Your task to perform on an android device: Search for seafood restaurants on Google Maps Image 0: 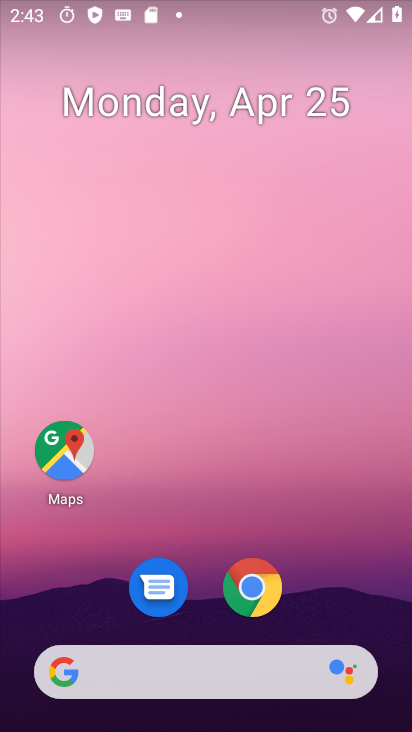
Step 0: drag from (367, 549) to (264, 99)
Your task to perform on an android device: Search for seafood restaurants on Google Maps Image 1: 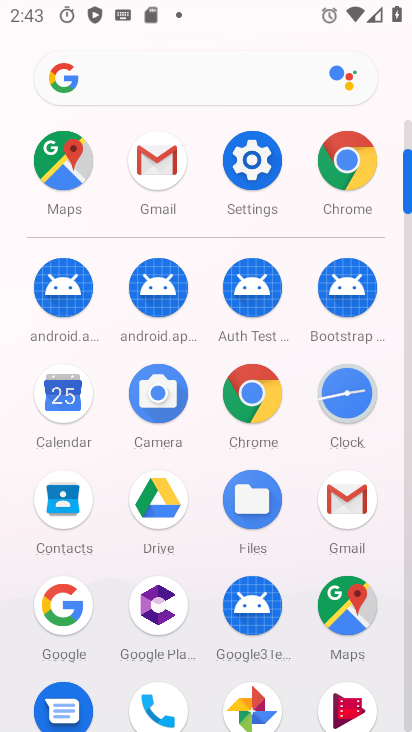
Step 1: click (346, 617)
Your task to perform on an android device: Search for seafood restaurants on Google Maps Image 2: 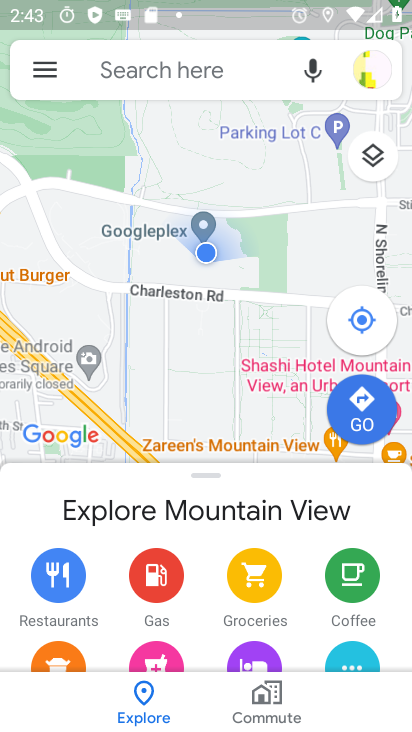
Step 2: click (236, 61)
Your task to perform on an android device: Search for seafood restaurants on Google Maps Image 3: 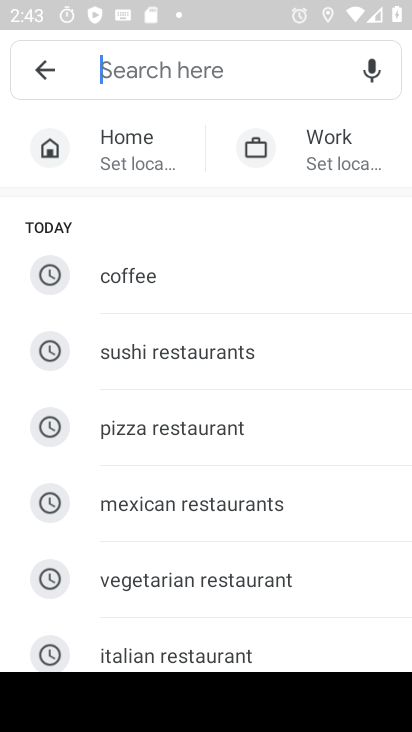
Step 3: type "seafood restaurants"
Your task to perform on an android device: Search for seafood restaurants on Google Maps Image 4: 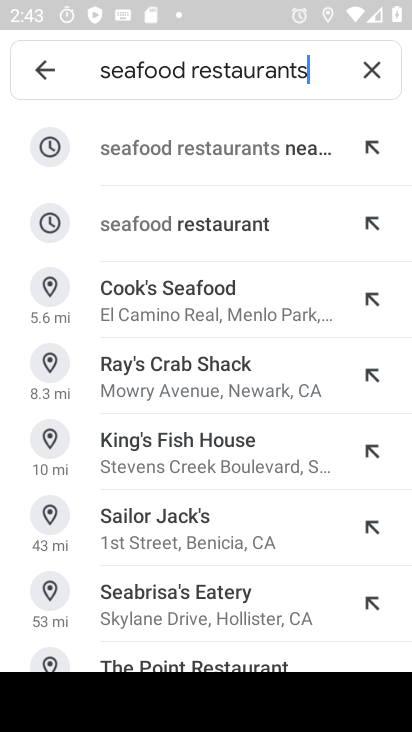
Step 4: press enter
Your task to perform on an android device: Search for seafood restaurants on Google Maps Image 5: 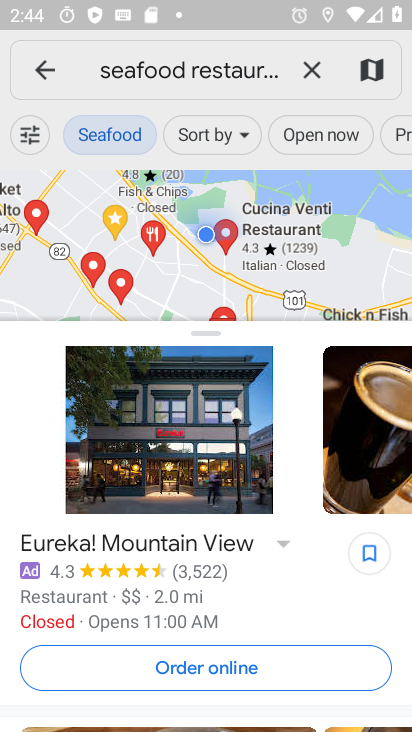
Step 5: task complete